Your task to perform on an android device: set default search engine in the chrome app Image 0: 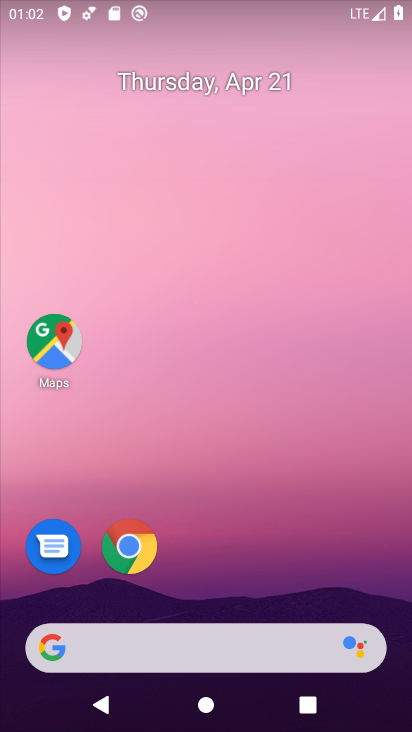
Step 0: click (265, 161)
Your task to perform on an android device: set default search engine in the chrome app Image 1: 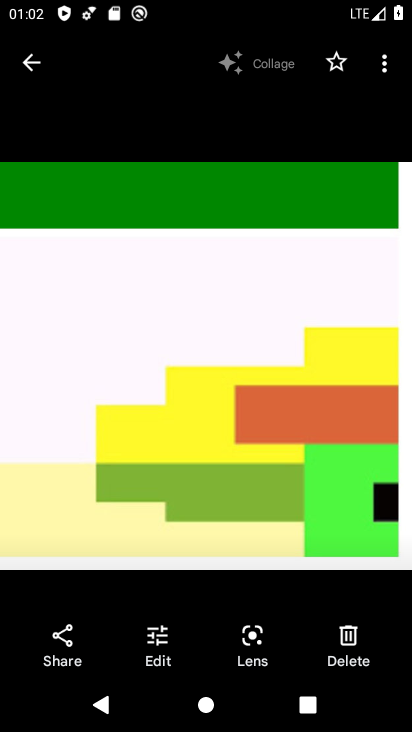
Step 1: press home button
Your task to perform on an android device: set default search engine in the chrome app Image 2: 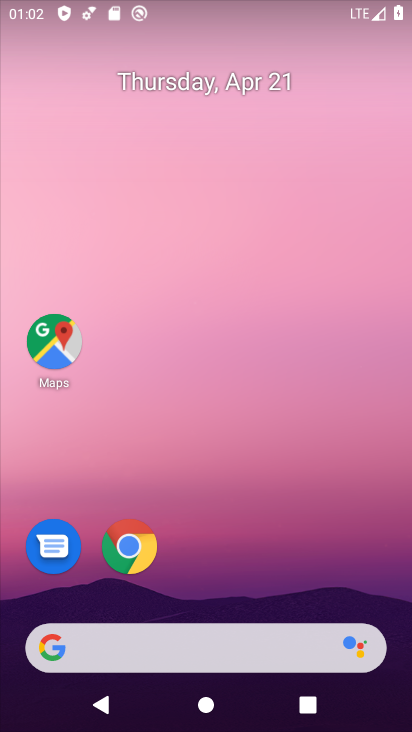
Step 2: click (137, 545)
Your task to perform on an android device: set default search engine in the chrome app Image 3: 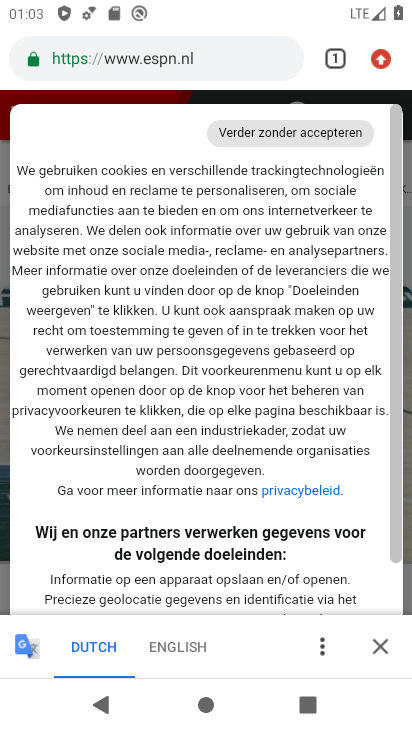
Step 3: click (375, 63)
Your task to perform on an android device: set default search engine in the chrome app Image 4: 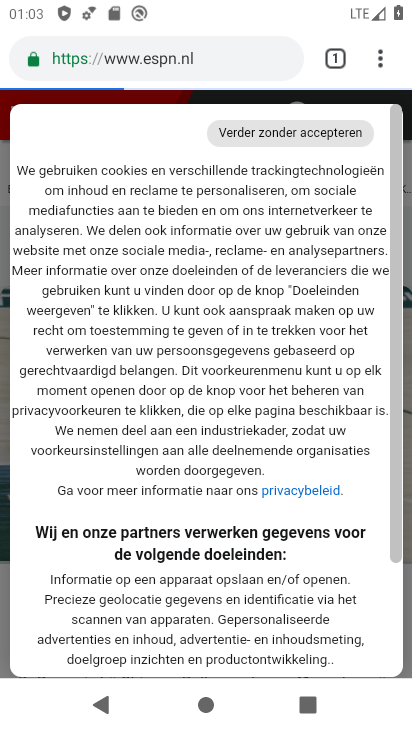
Step 4: click (380, 58)
Your task to perform on an android device: set default search engine in the chrome app Image 5: 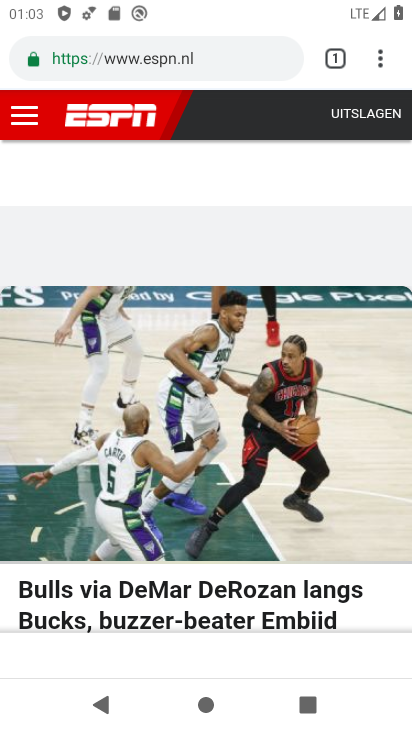
Step 5: drag from (380, 58) to (196, 576)
Your task to perform on an android device: set default search engine in the chrome app Image 6: 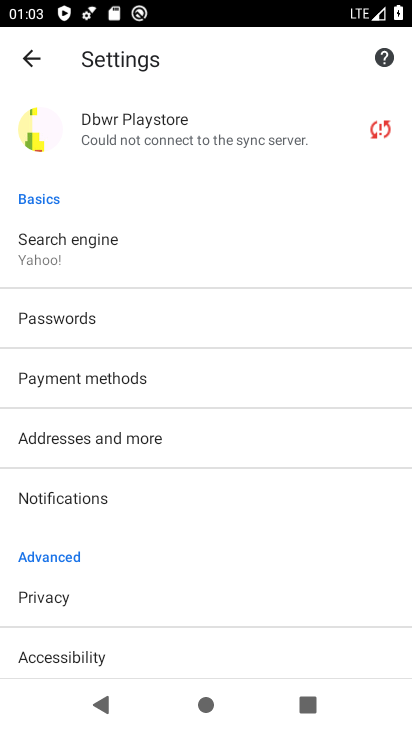
Step 6: click (99, 260)
Your task to perform on an android device: set default search engine in the chrome app Image 7: 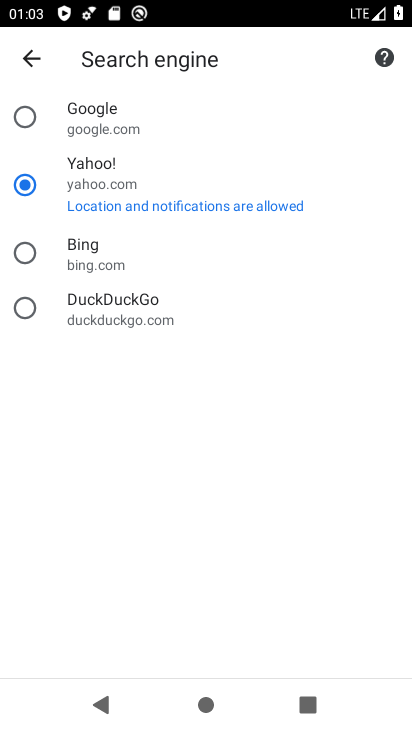
Step 7: click (113, 128)
Your task to perform on an android device: set default search engine in the chrome app Image 8: 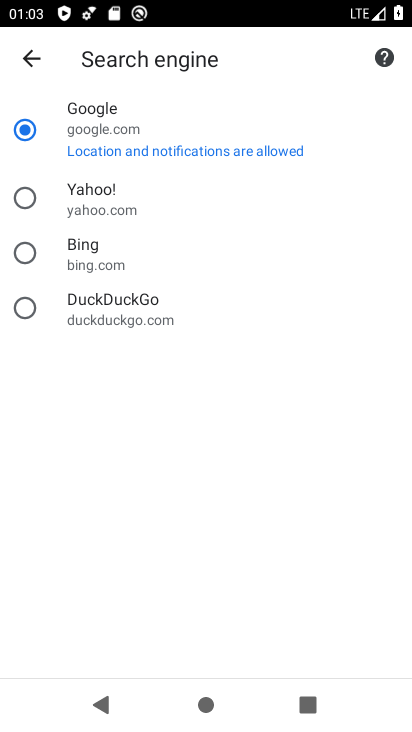
Step 8: task complete